Your task to perform on an android device: Open Reddit.com Image 0: 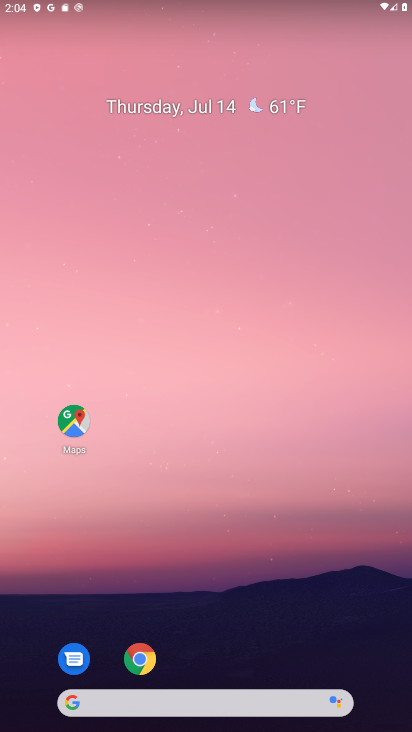
Step 0: click (145, 662)
Your task to perform on an android device: Open Reddit.com Image 1: 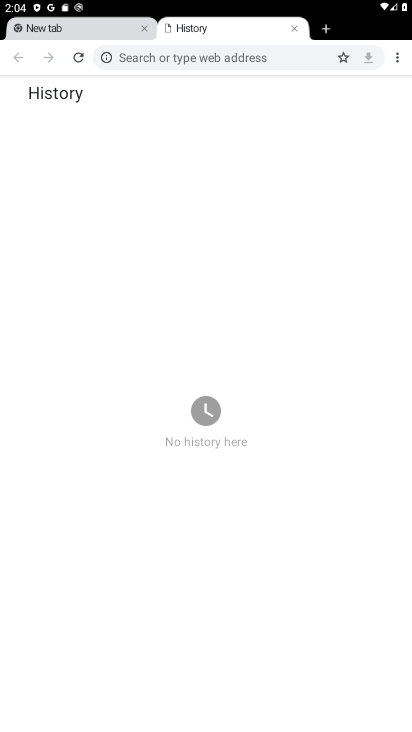
Step 1: click (195, 59)
Your task to perform on an android device: Open Reddit.com Image 2: 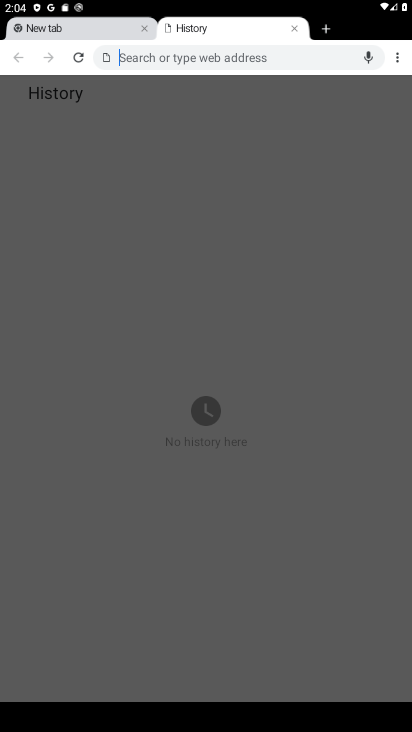
Step 2: type "Reddit.com"
Your task to perform on an android device: Open Reddit.com Image 3: 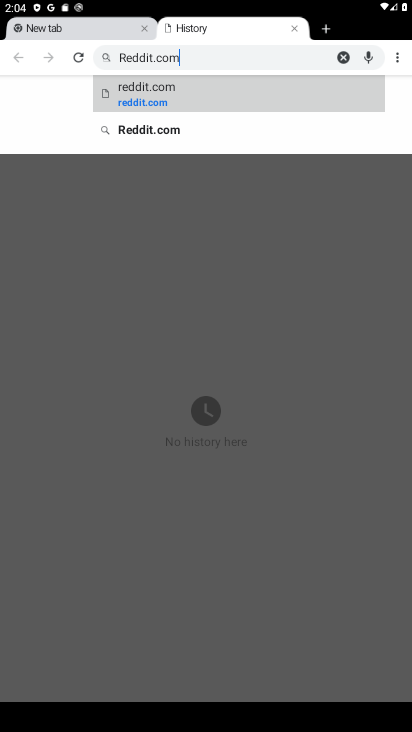
Step 3: type ""
Your task to perform on an android device: Open Reddit.com Image 4: 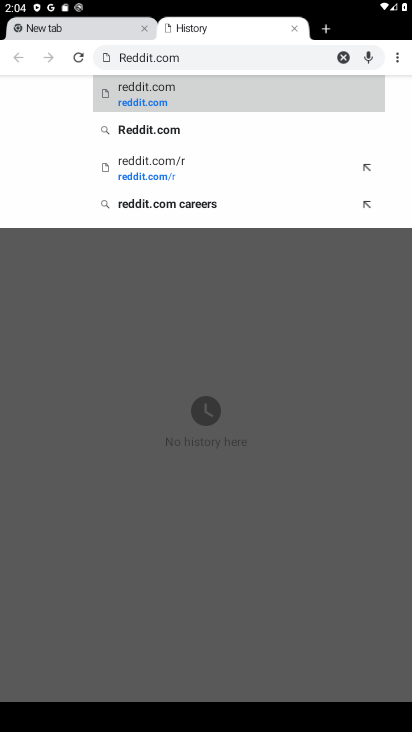
Step 4: click (126, 95)
Your task to perform on an android device: Open Reddit.com Image 5: 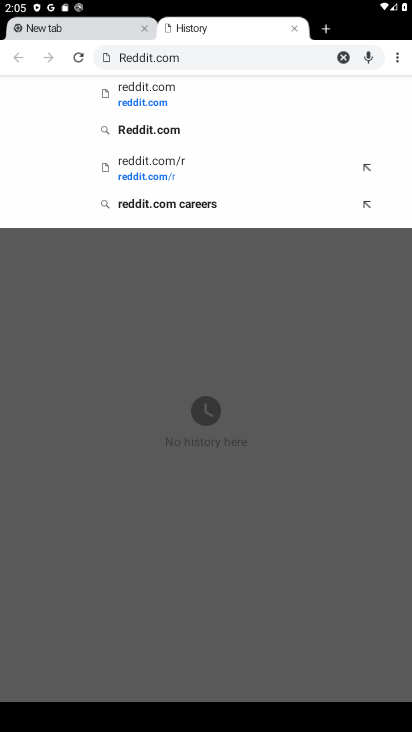
Step 5: click (148, 94)
Your task to perform on an android device: Open Reddit.com Image 6: 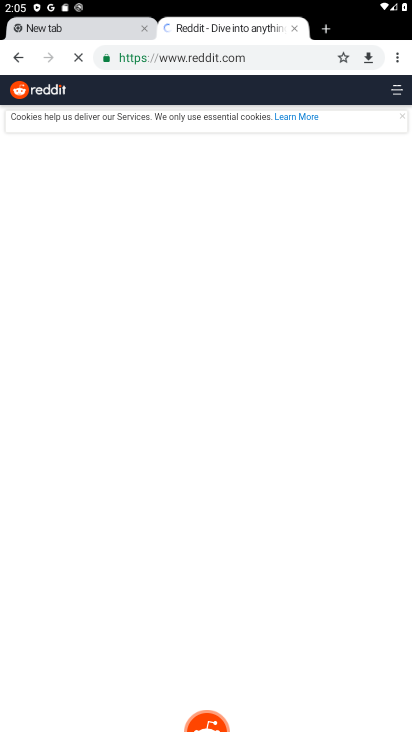
Step 6: task complete